Your task to perform on an android device: turn on translation in the chrome app Image 0: 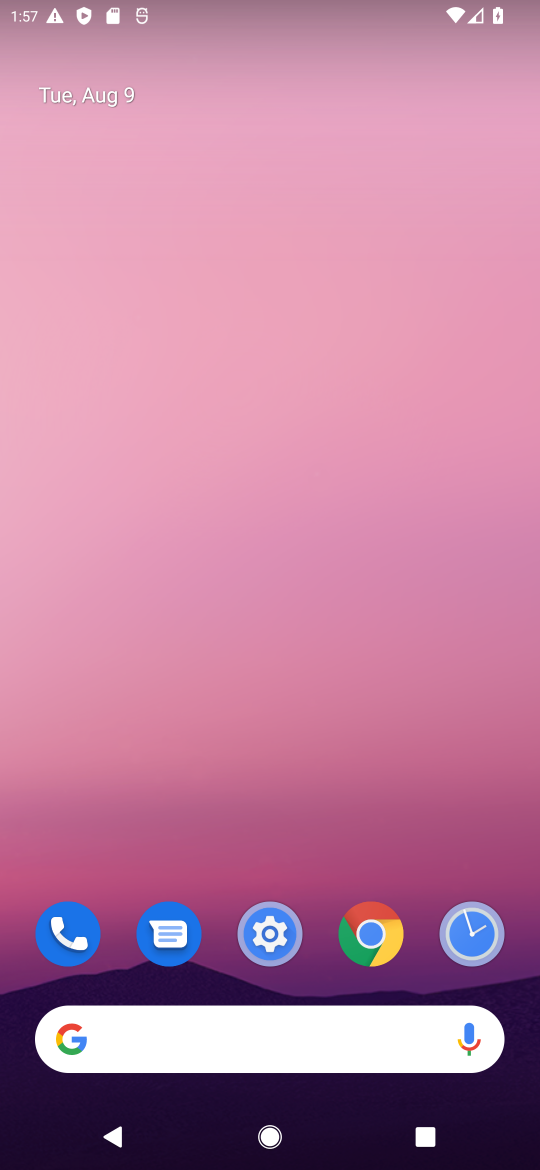
Step 0: click (365, 954)
Your task to perform on an android device: turn on translation in the chrome app Image 1: 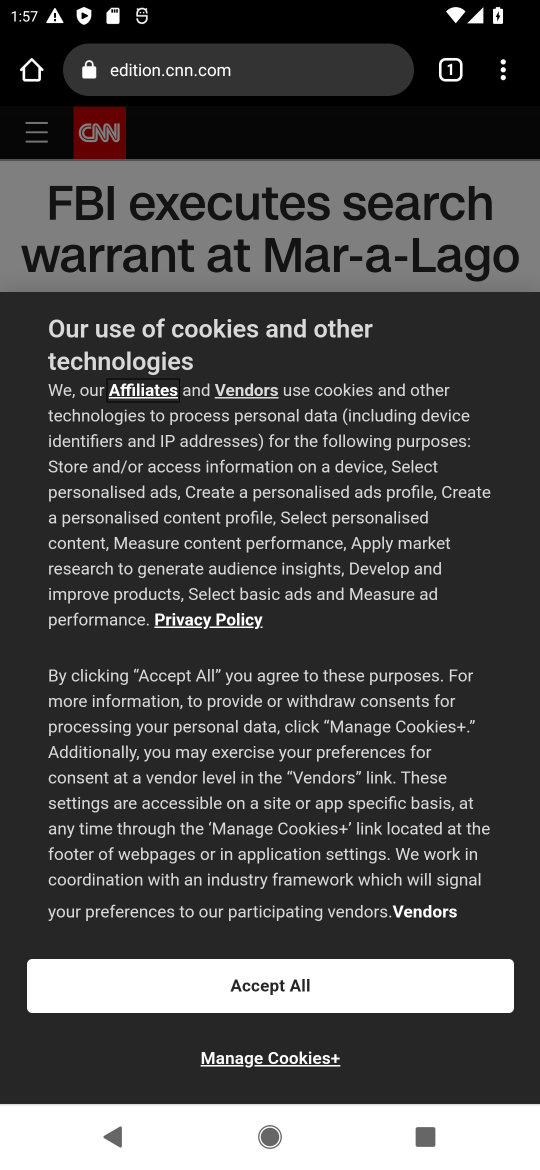
Step 1: click (511, 56)
Your task to perform on an android device: turn on translation in the chrome app Image 2: 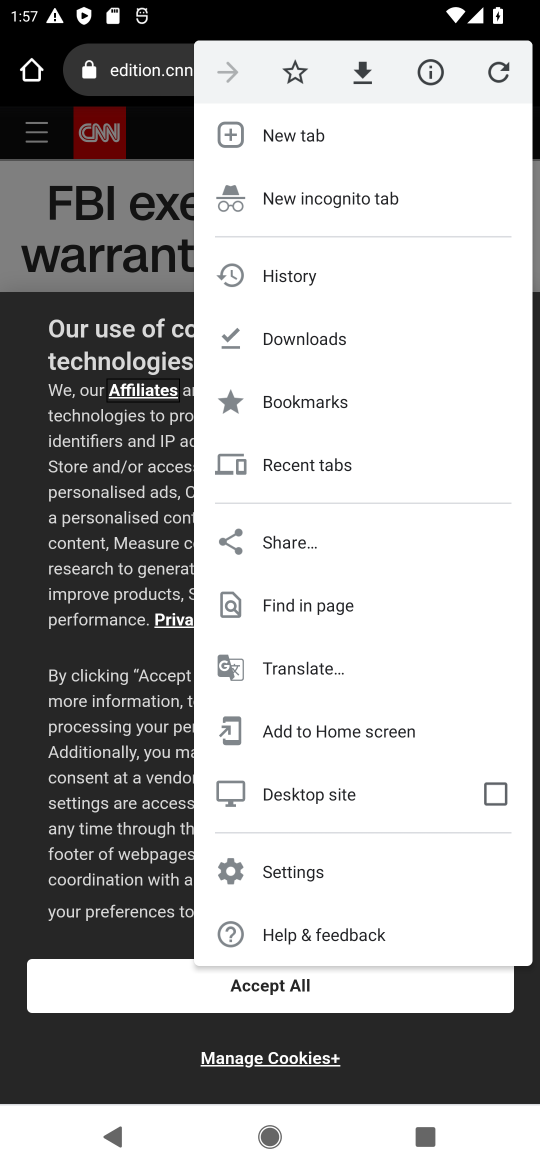
Step 2: click (247, 878)
Your task to perform on an android device: turn on translation in the chrome app Image 3: 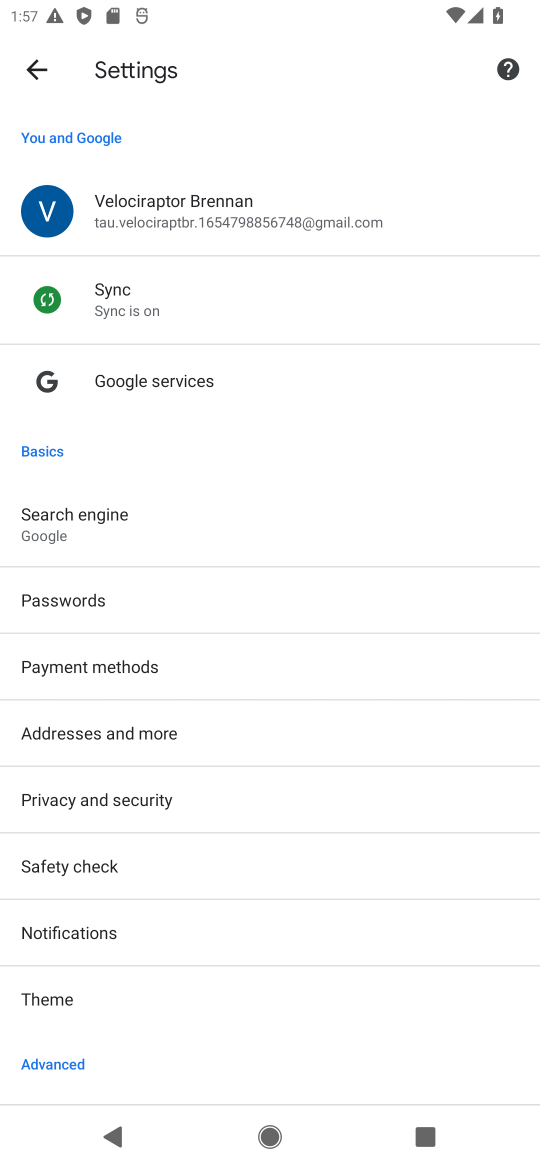
Step 3: task complete